Your task to perform on an android device: turn on priority inbox in the gmail app Image 0: 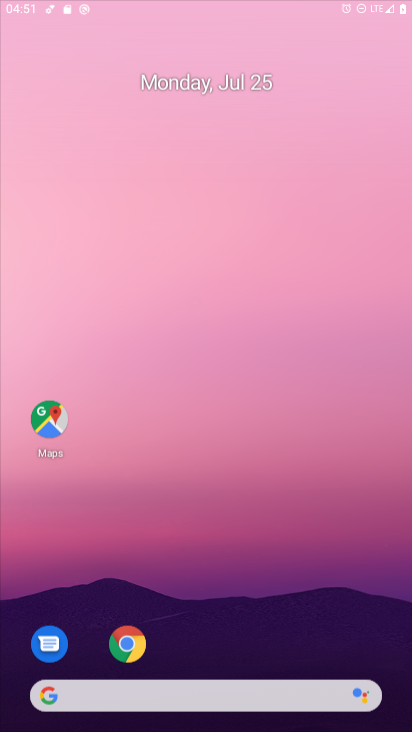
Step 0: press home button
Your task to perform on an android device: turn on priority inbox in the gmail app Image 1: 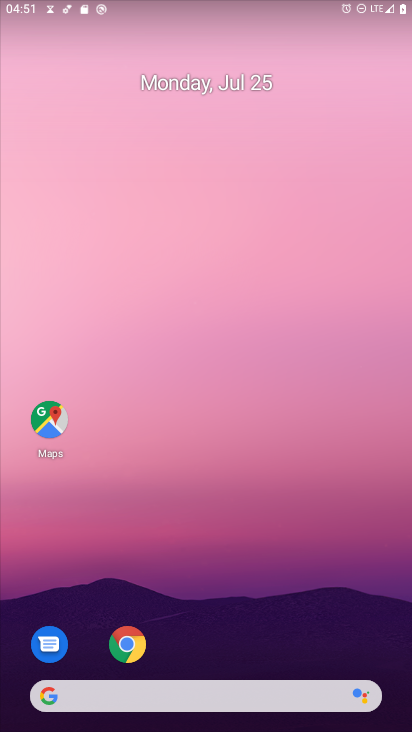
Step 1: drag from (225, 617) to (227, 59)
Your task to perform on an android device: turn on priority inbox in the gmail app Image 2: 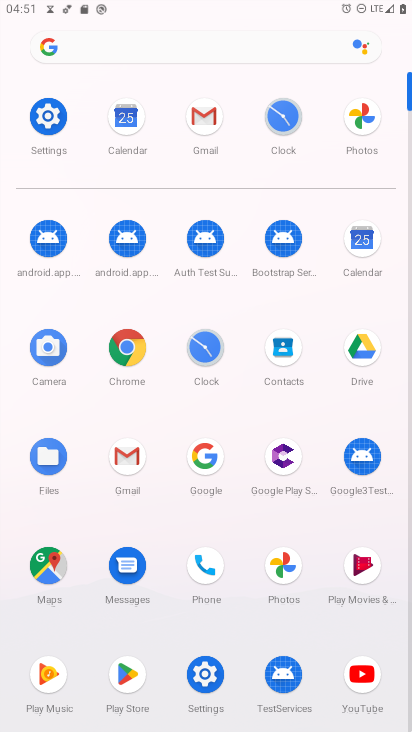
Step 2: click (207, 121)
Your task to perform on an android device: turn on priority inbox in the gmail app Image 3: 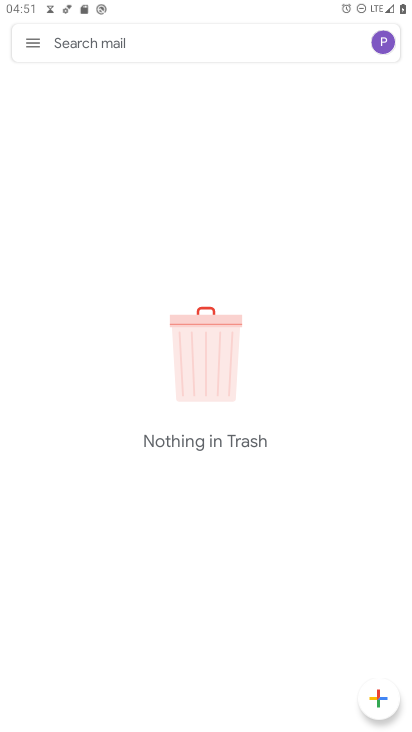
Step 3: click (35, 48)
Your task to perform on an android device: turn on priority inbox in the gmail app Image 4: 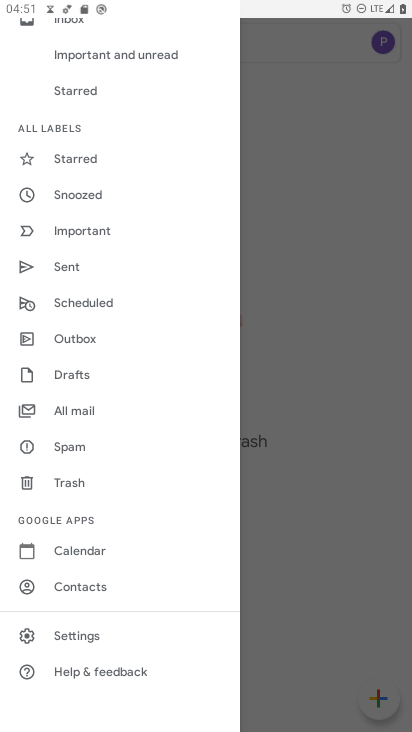
Step 4: click (90, 636)
Your task to perform on an android device: turn on priority inbox in the gmail app Image 5: 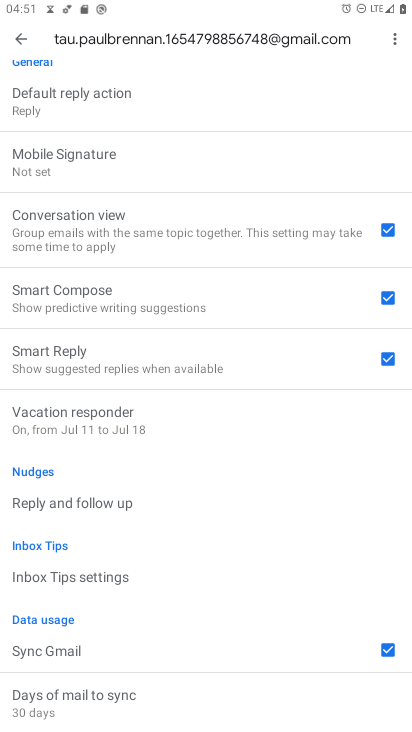
Step 5: task complete